Your task to perform on an android device: Open Chrome and go to settings Image 0: 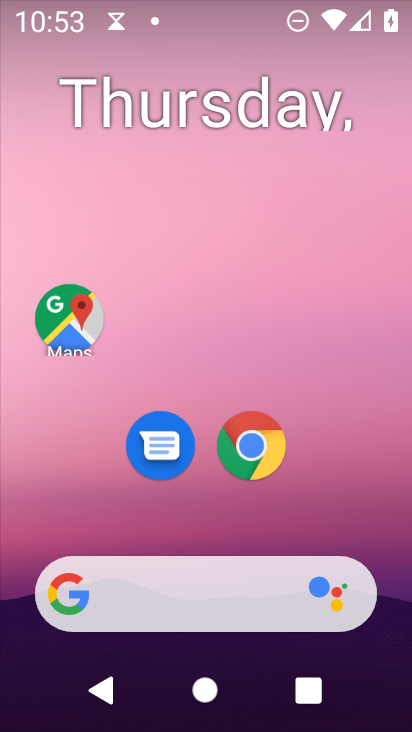
Step 0: click (274, 434)
Your task to perform on an android device: Open Chrome and go to settings Image 1: 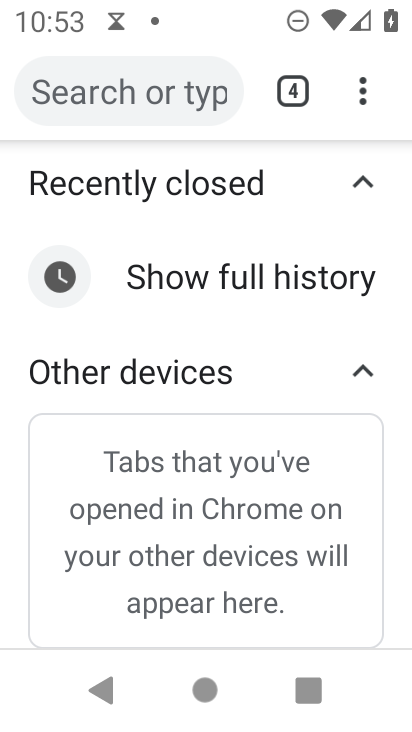
Step 1: click (361, 102)
Your task to perform on an android device: Open Chrome and go to settings Image 2: 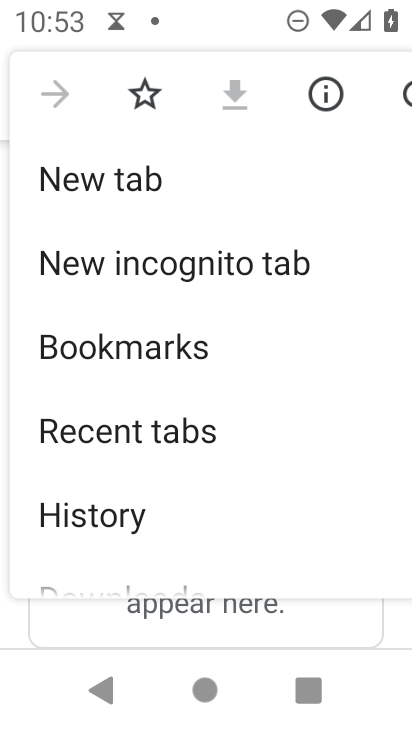
Step 2: drag from (180, 556) to (179, 120)
Your task to perform on an android device: Open Chrome and go to settings Image 3: 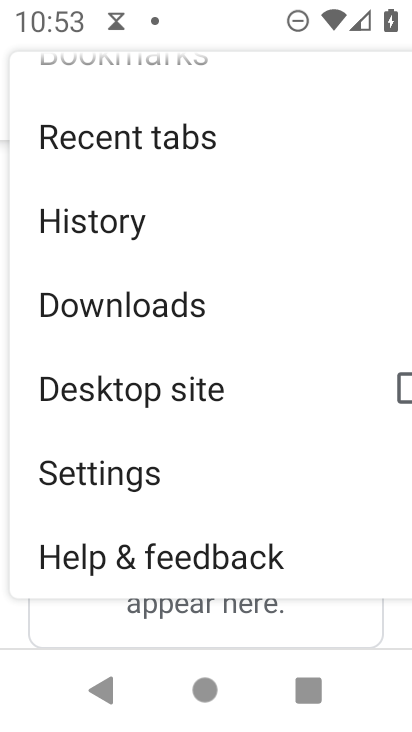
Step 3: click (120, 472)
Your task to perform on an android device: Open Chrome and go to settings Image 4: 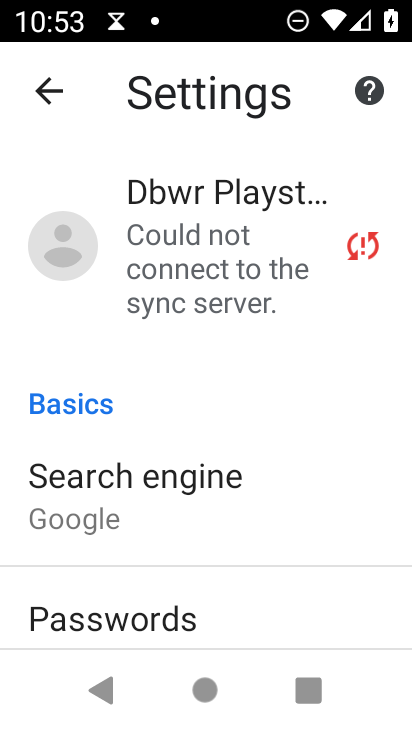
Step 4: task complete